Your task to perform on an android device: manage bookmarks in the chrome app Image 0: 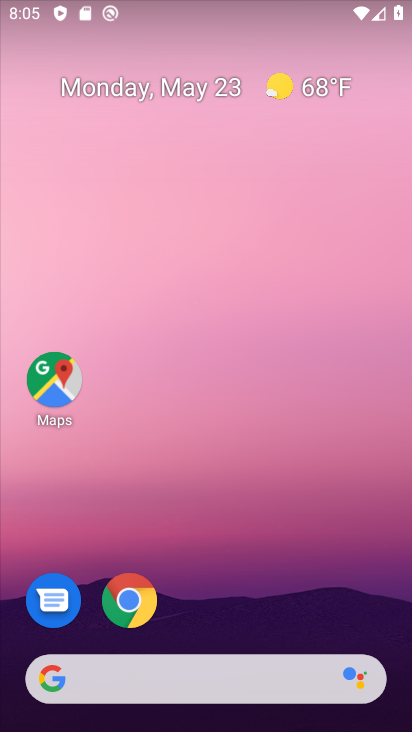
Step 0: click (122, 602)
Your task to perform on an android device: manage bookmarks in the chrome app Image 1: 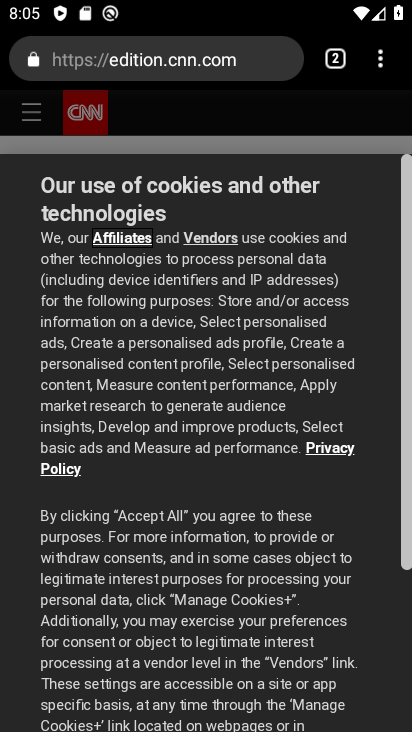
Step 1: click (381, 61)
Your task to perform on an android device: manage bookmarks in the chrome app Image 2: 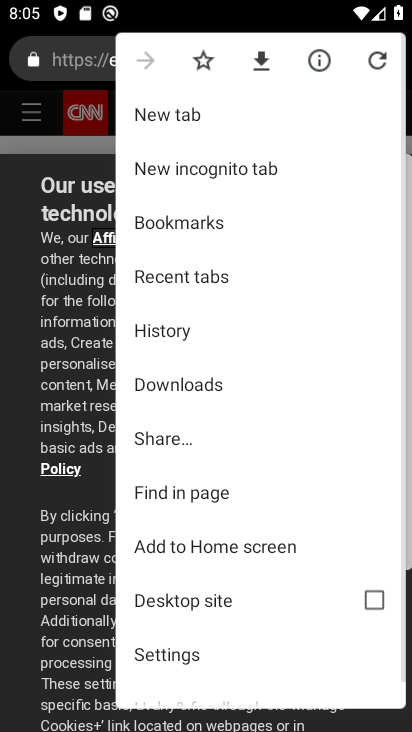
Step 2: click (197, 217)
Your task to perform on an android device: manage bookmarks in the chrome app Image 3: 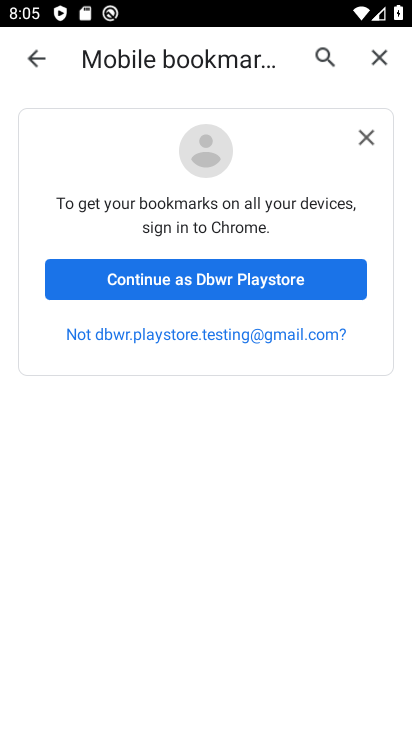
Step 3: click (367, 138)
Your task to perform on an android device: manage bookmarks in the chrome app Image 4: 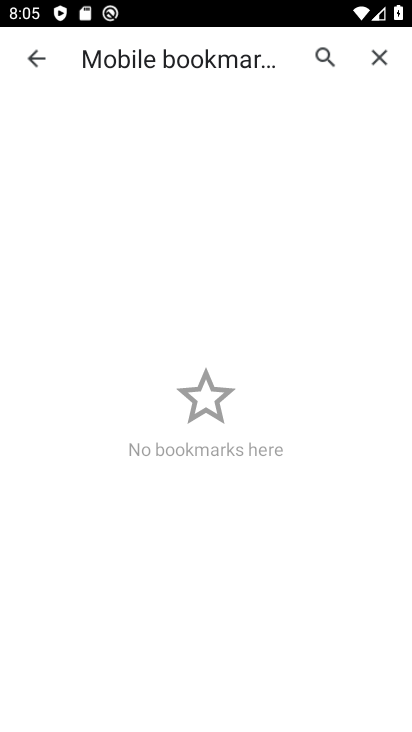
Step 4: task complete